Your task to perform on an android device: Do I have any events this weekend? Image 0: 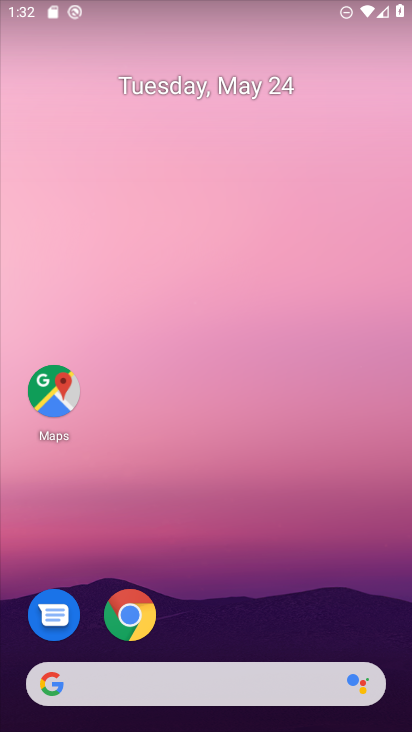
Step 0: drag from (183, 590) to (247, 68)
Your task to perform on an android device: Do I have any events this weekend? Image 1: 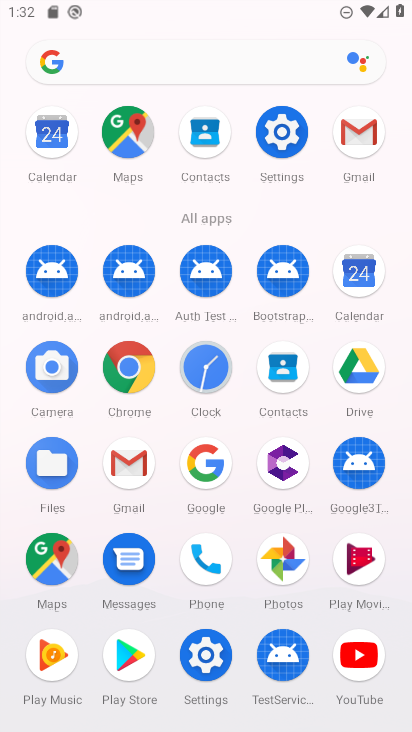
Step 1: click (363, 266)
Your task to perform on an android device: Do I have any events this weekend? Image 2: 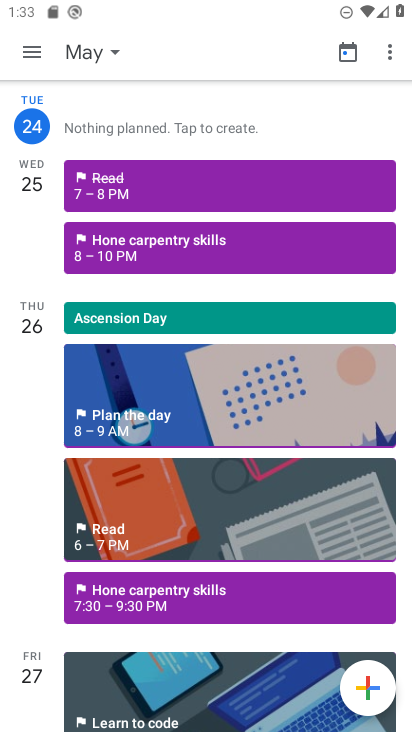
Step 2: drag from (237, 671) to (328, 107)
Your task to perform on an android device: Do I have any events this weekend? Image 3: 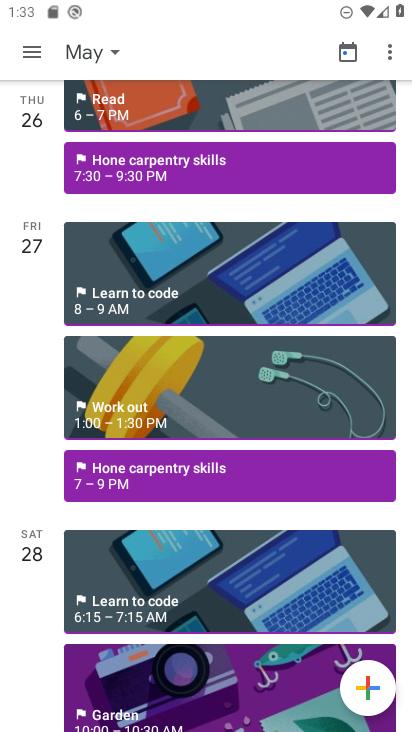
Step 3: drag from (151, 644) to (248, 105)
Your task to perform on an android device: Do I have any events this weekend? Image 4: 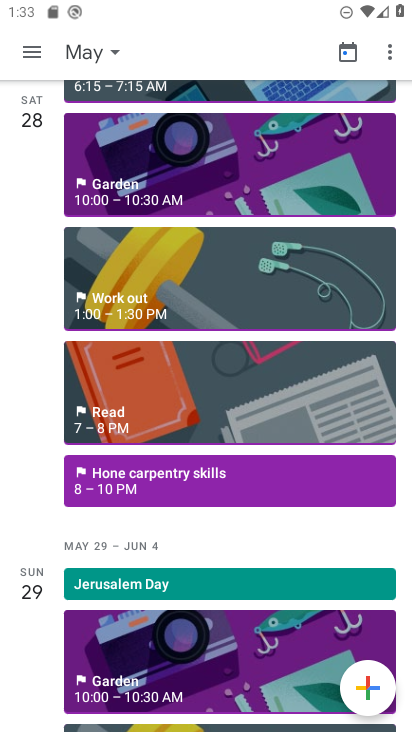
Step 4: click (98, 592)
Your task to perform on an android device: Do I have any events this weekend? Image 5: 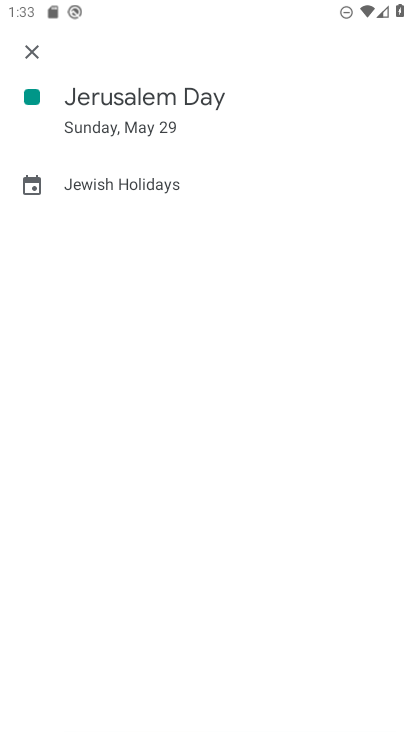
Step 5: task complete